Your task to perform on an android device: Open calendar and show me the first week of next month Image 0: 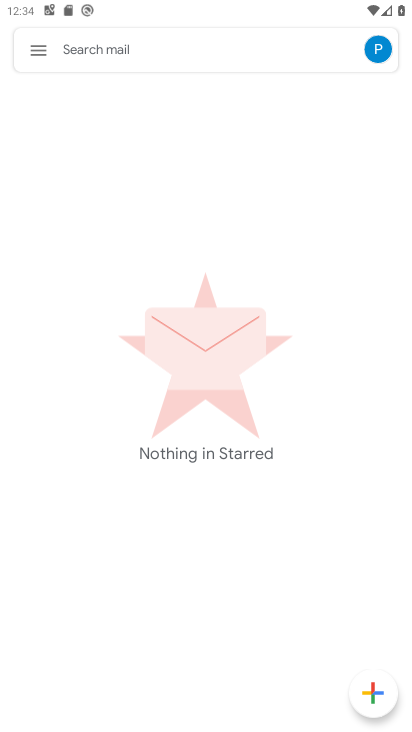
Step 0: drag from (243, 644) to (296, 261)
Your task to perform on an android device: Open calendar and show me the first week of next month Image 1: 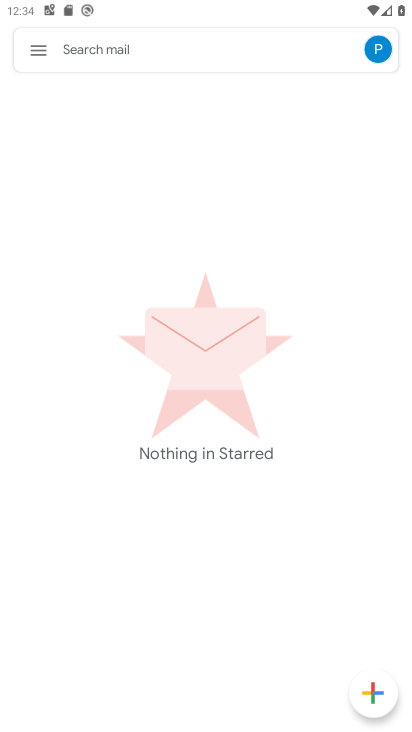
Step 1: drag from (196, 629) to (221, 412)
Your task to perform on an android device: Open calendar and show me the first week of next month Image 2: 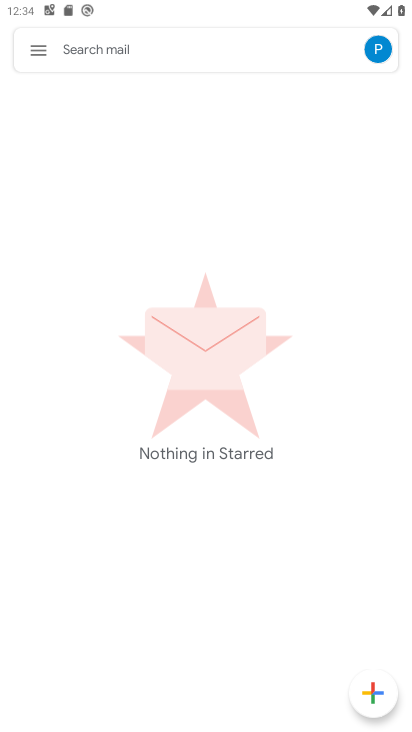
Step 2: click (41, 46)
Your task to perform on an android device: Open calendar and show me the first week of next month Image 3: 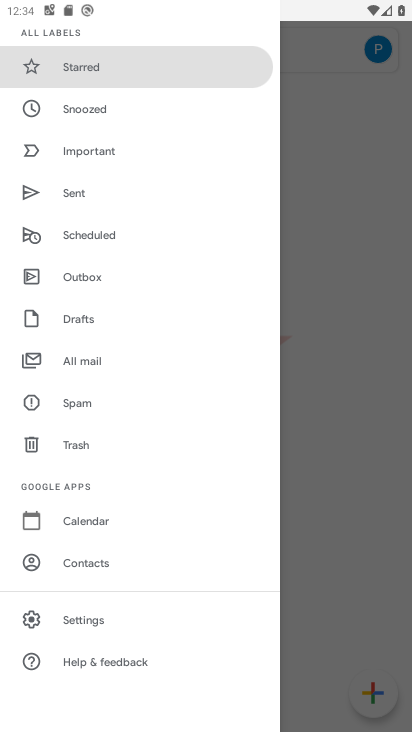
Step 3: click (347, 165)
Your task to perform on an android device: Open calendar and show me the first week of next month Image 4: 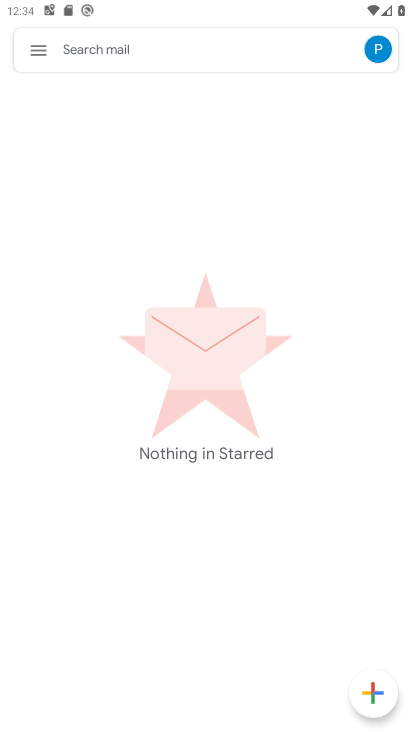
Step 4: press home button
Your task to perform on an android device: Open calendar and show me the first week of next month Image 5: 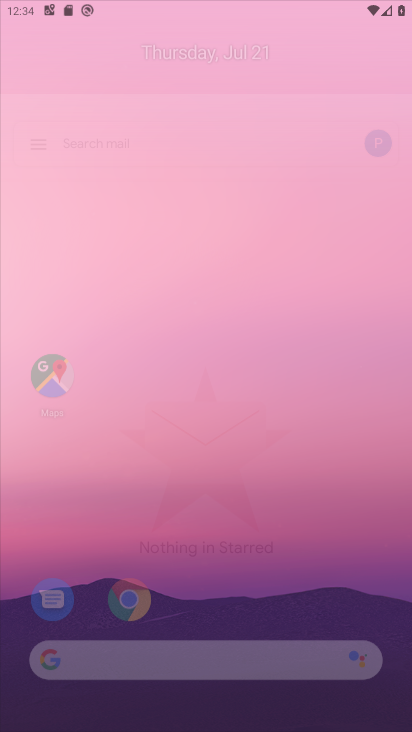
Step 5: drag from (215, 606) to (324, 138)
Your task to perform on an android device: Open calendar and show me the first week of next month Image 6: 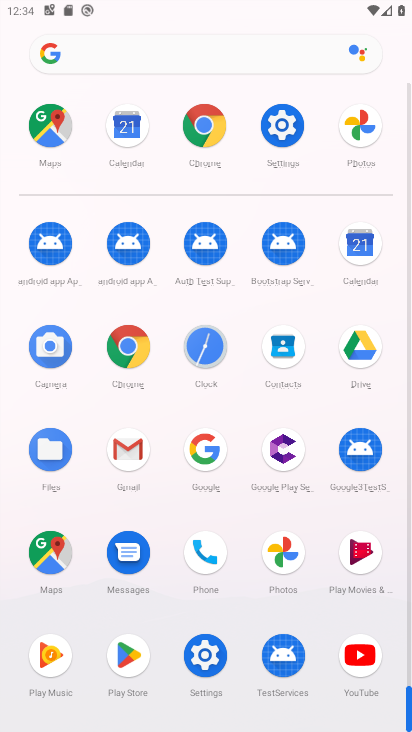
Step 6: click (363, 230)
Your task to perform on an android device: Open calendar and show me the first week of next month Image 7: 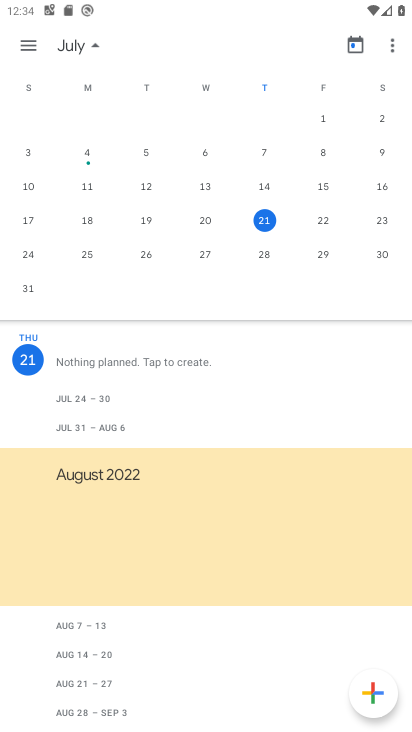
Step 7: drag from (353, 204) to (0, 157)
Your task to perform on an android device: Open calendar and show me the first week of next month Image 8: 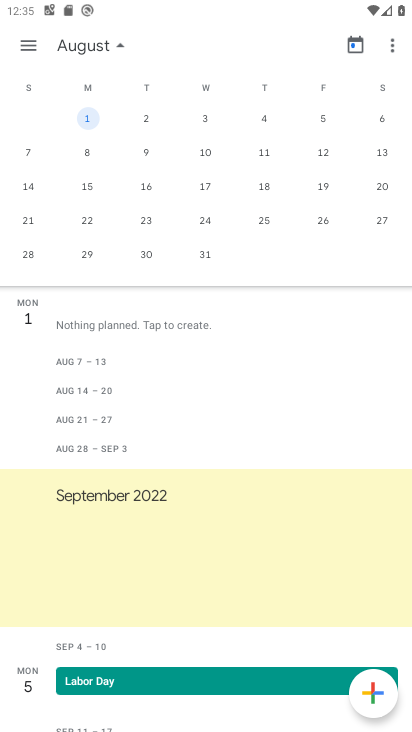
Step 8: click (321, 114)
Your task to perform on an android device: Open calendar and show me the first week of next month Image 9: 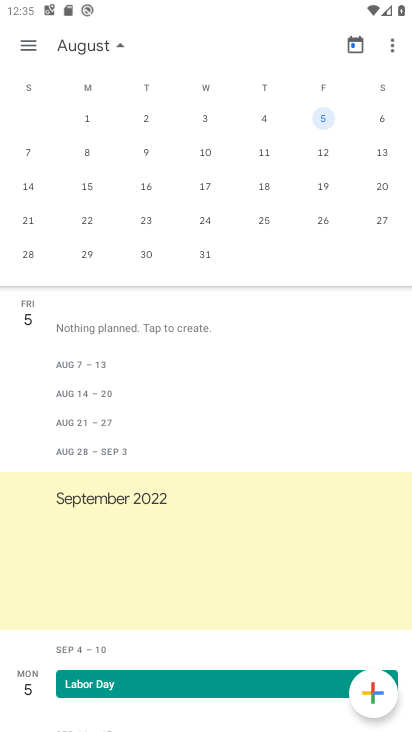
Step 9: task complete